Your task to perform on an android device: Play the last video I watched on Youtube Image 0: 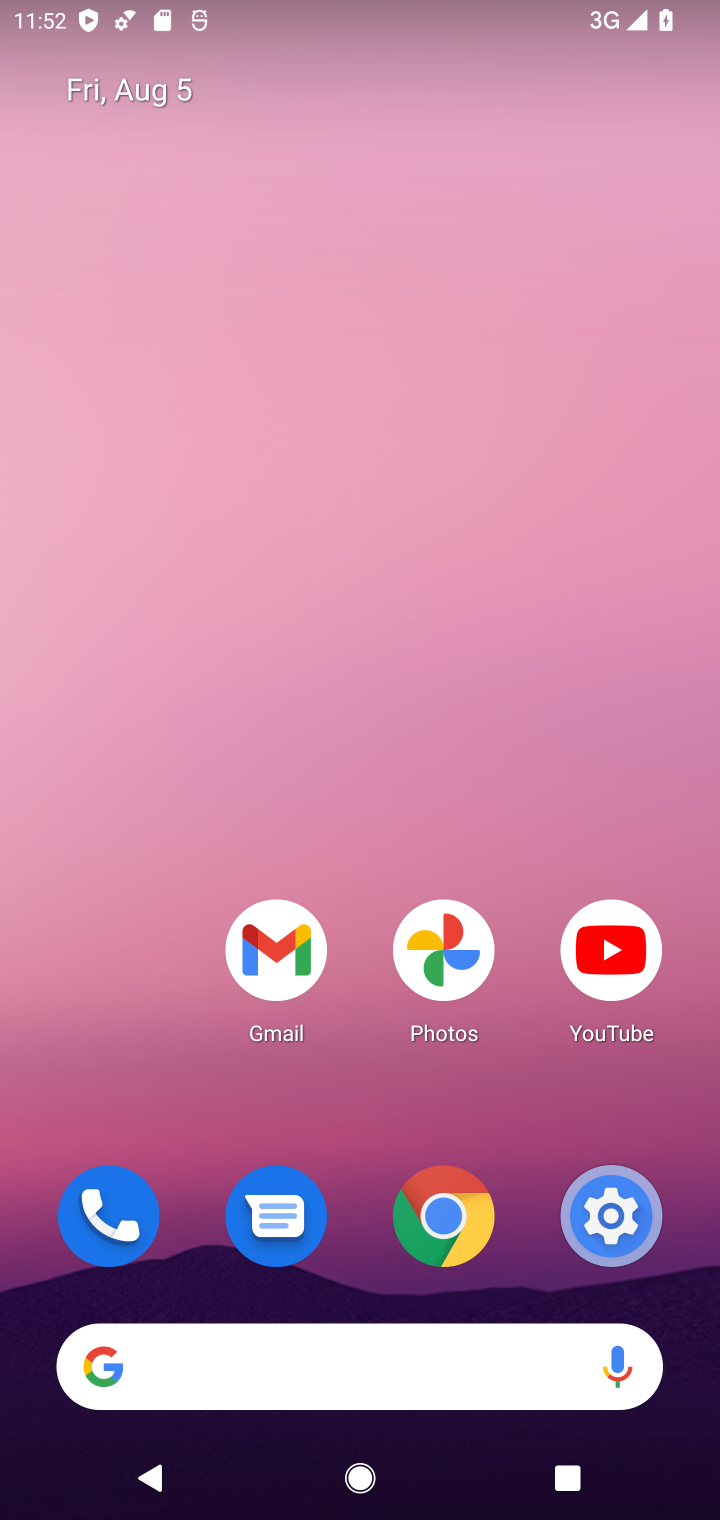
Step 0: drag from (408, 1346) to (118, 3)
Your task to perform on an android device: Play the last video I watched on Youtube Image 1: 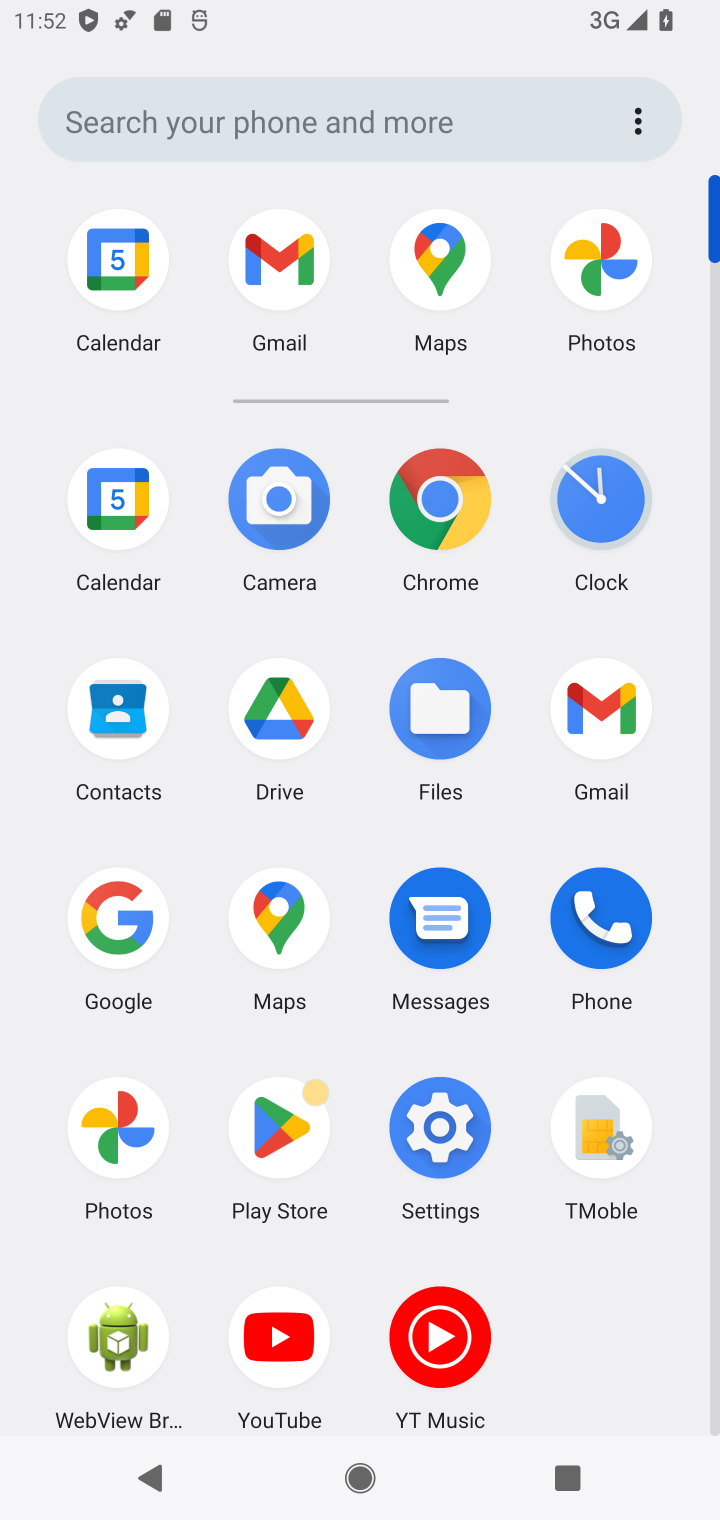
Step 1: click (306, 1333)
Your task to perform on an android device: Play the last video I watched on Youtube Image 2: 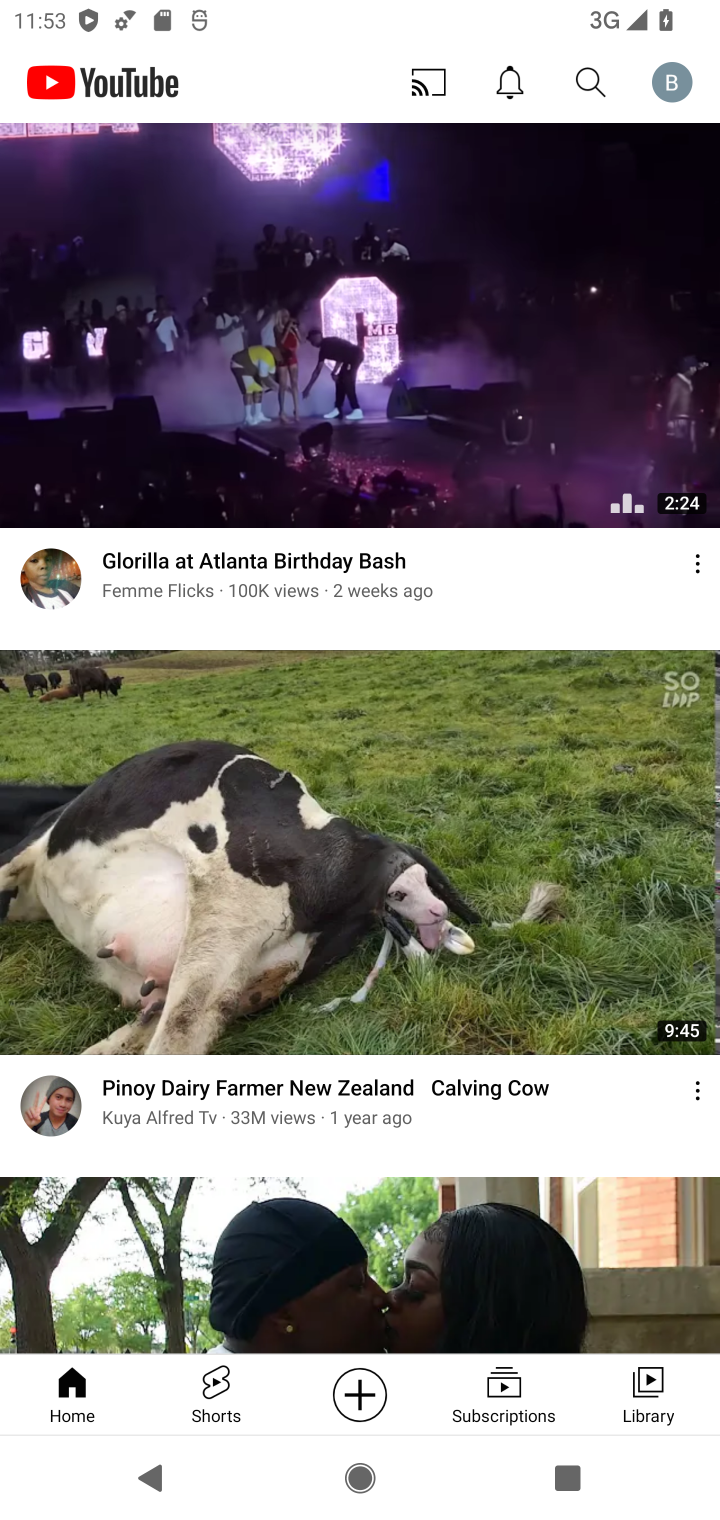
Step 2: click (648, 1381)
Your task to perform on an android device: Play the last video I watched on Youtube Image 3: 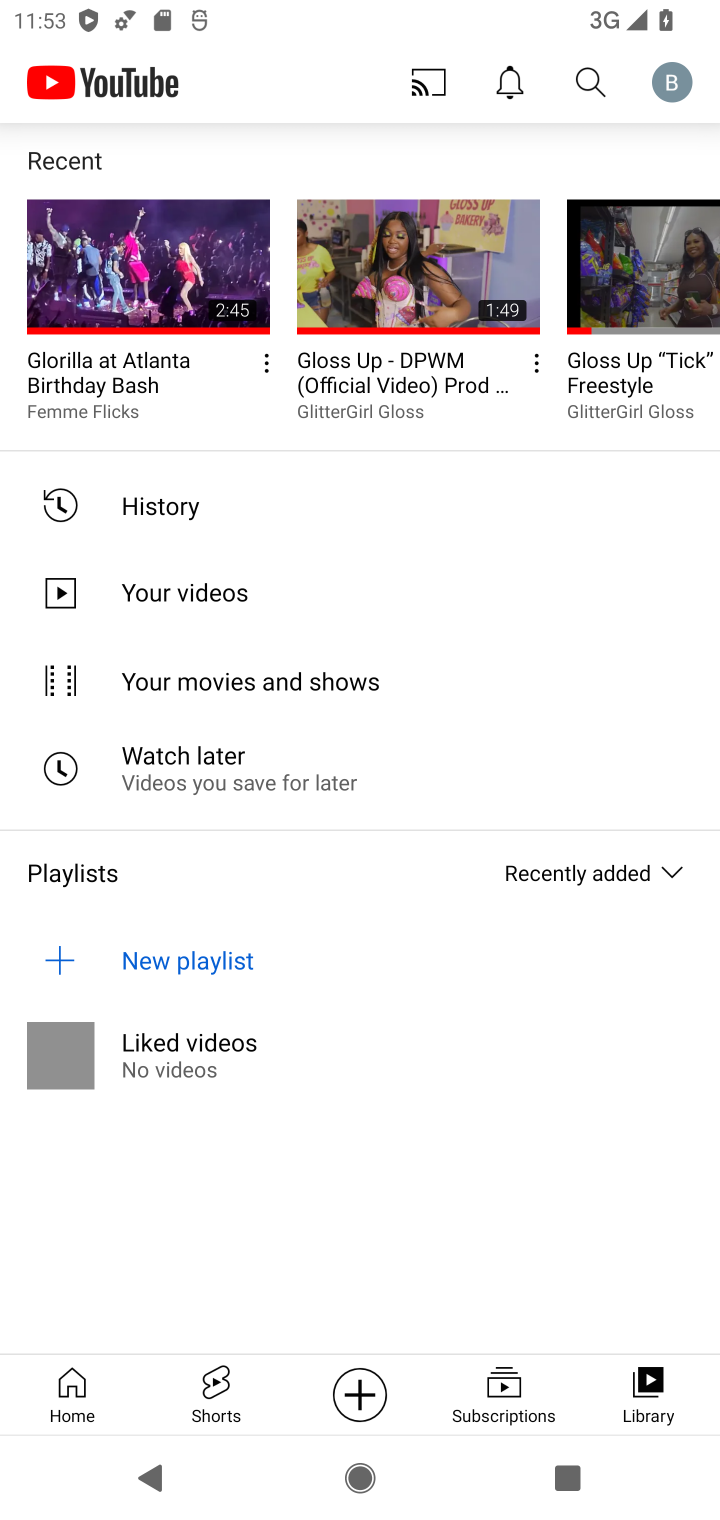
Step 3: click (183, 265)
Your task to perform on an android device: Play the last video I watched on Youtube Image 4: 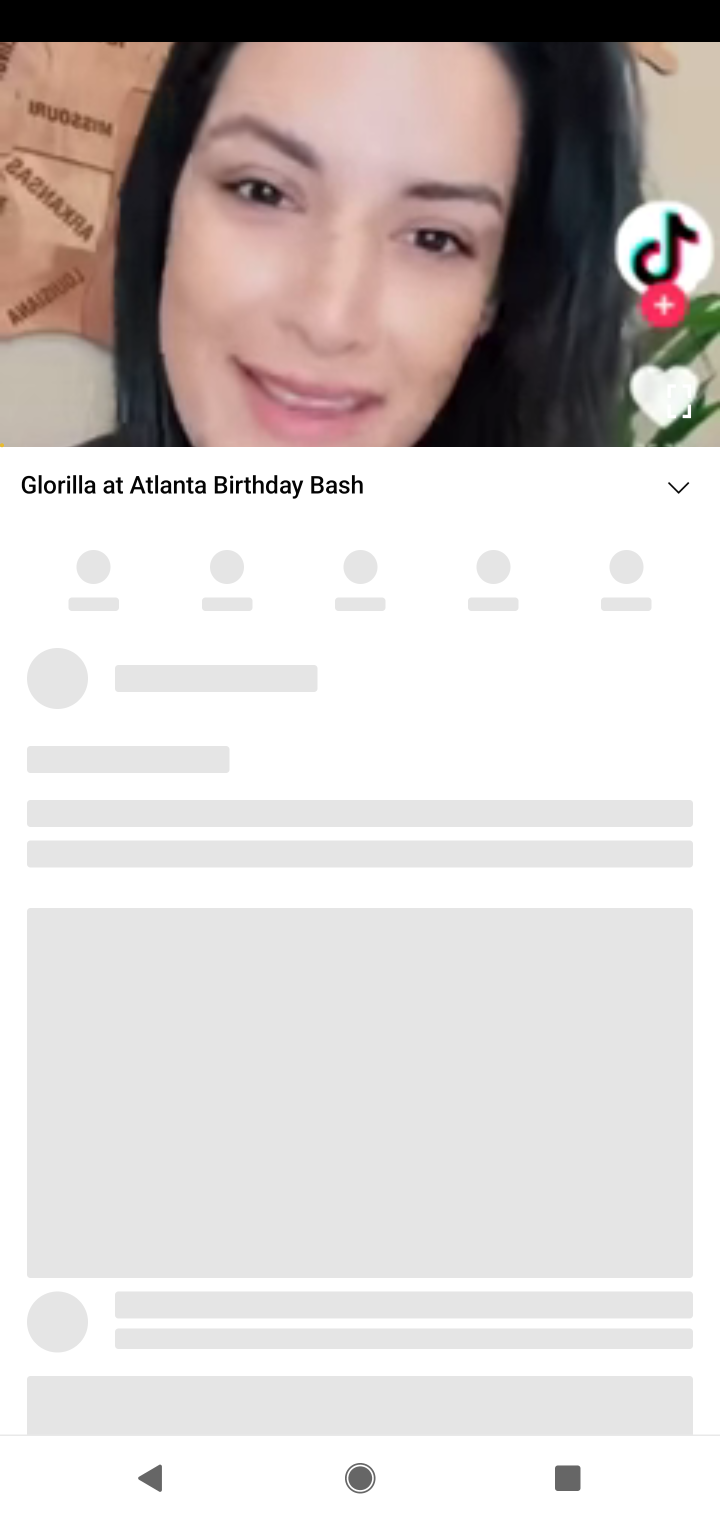
Step 4: task complete